Your task to perform on an android device: Open the web browser Image 0: 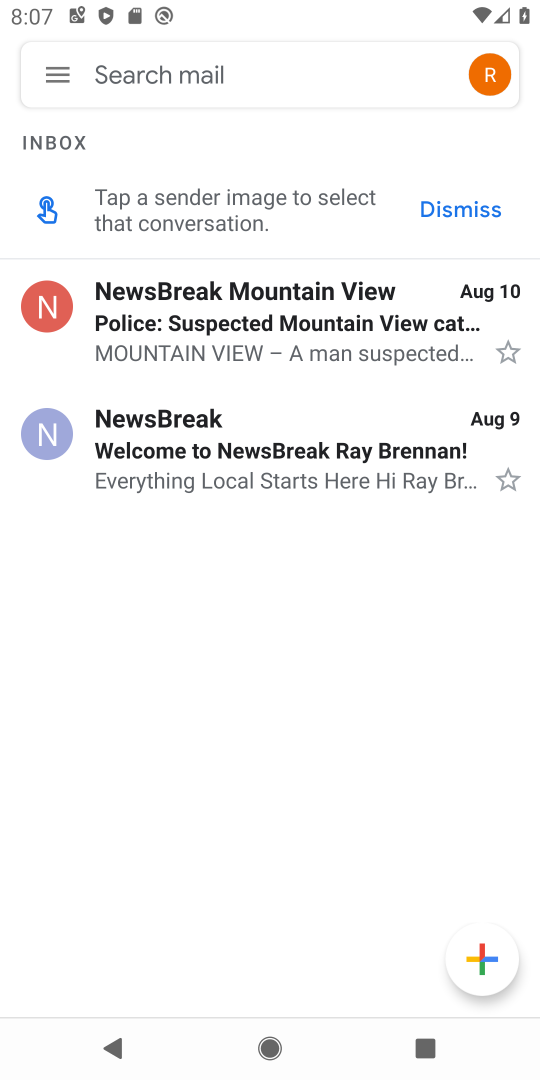
Step 0: press home button
Your task to perform on an android device: Open the web browser Image 1: 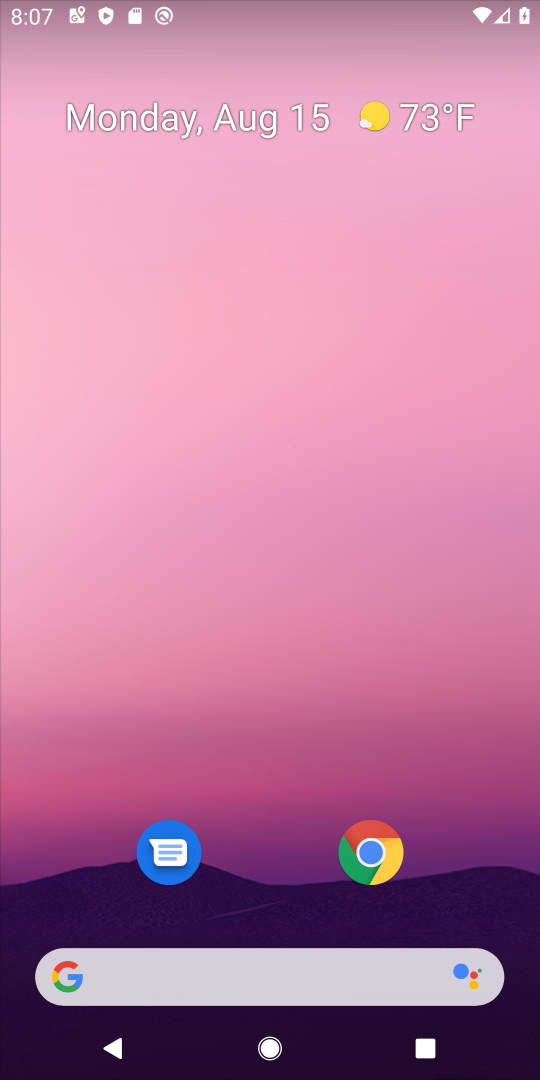
Step 1: click (373, 853)
Your task to perform on an android device: Open the web browser Image 2: 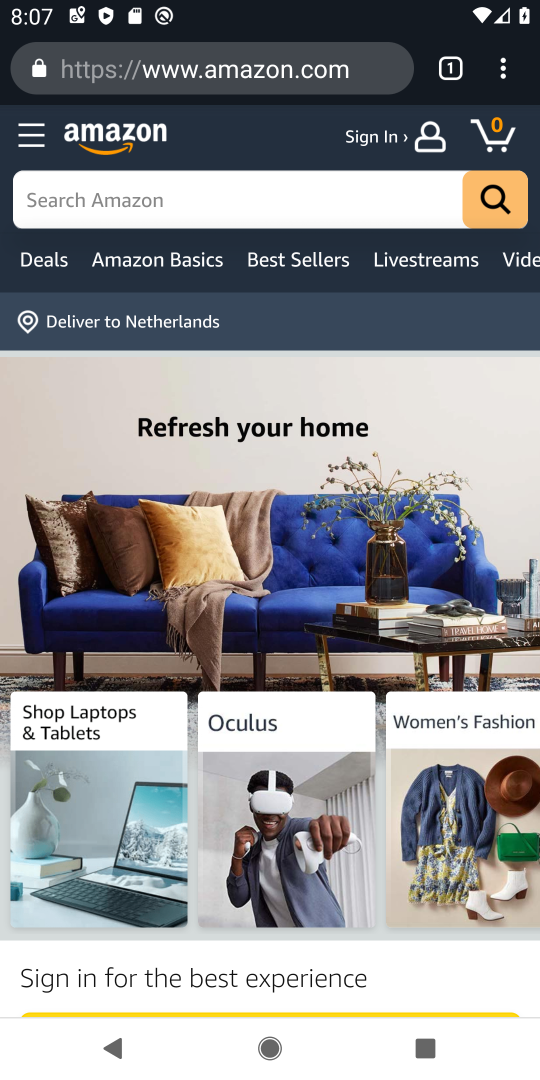
Step 2: task complete